Your task to perform on an android device: Open accessibility settings Image 0: 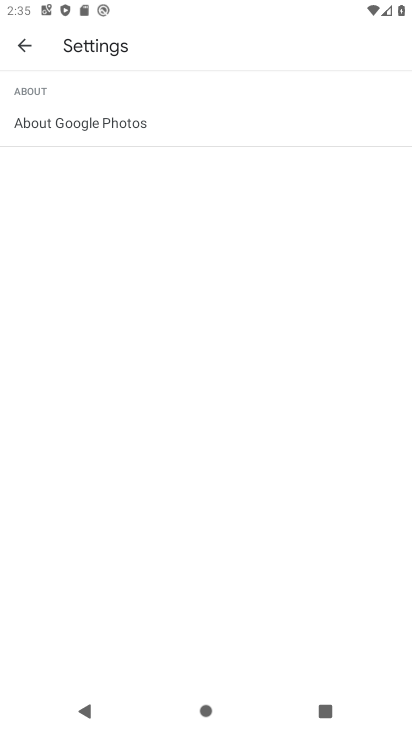
Step 0: press home button
Your task to perform on an android device: Open accessibility settings Image 1: 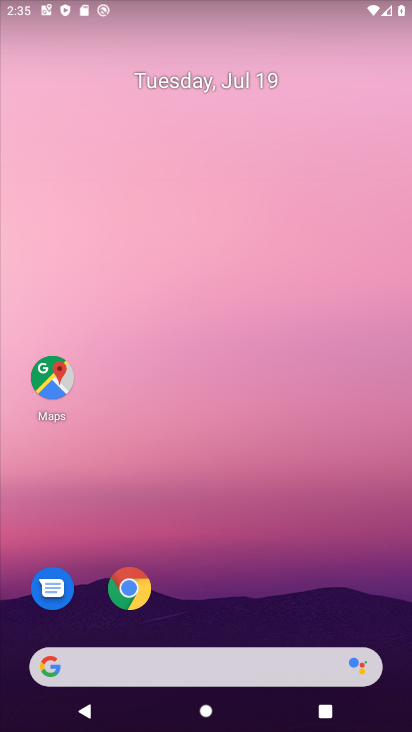
Step 1: drag from (188, 535) to (172, 111)
Your task to perform on an android device: Open accessibility settings Image 2: 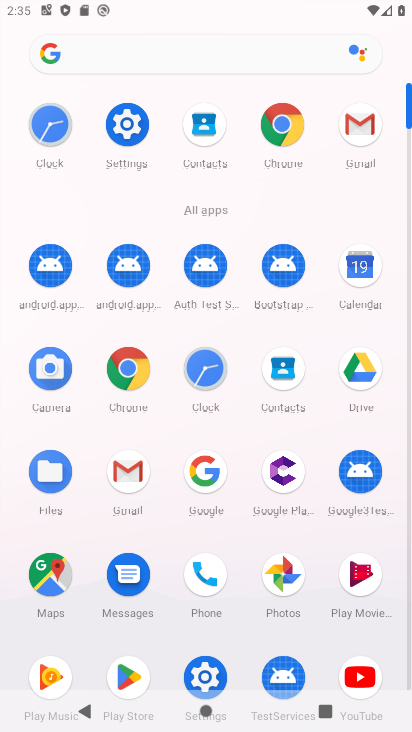
Step 2: click (126, 132)
Your task to perform on an android device: Open accessibility settings Image 3: 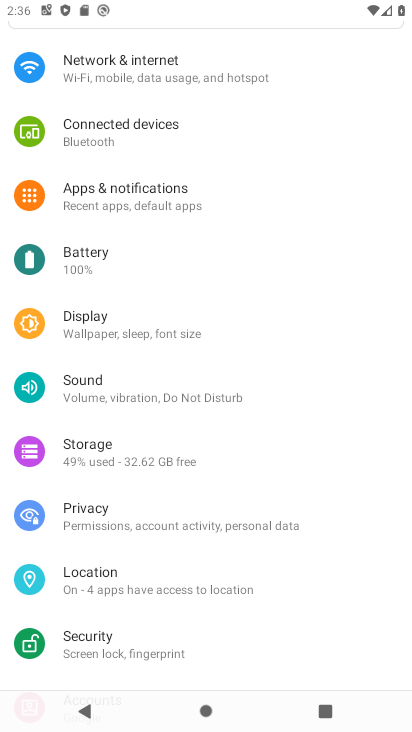
Step 3: drag from (129, 503) to (204, 207)
Your task to perform on an android device: Open accessibility settings Image 4: 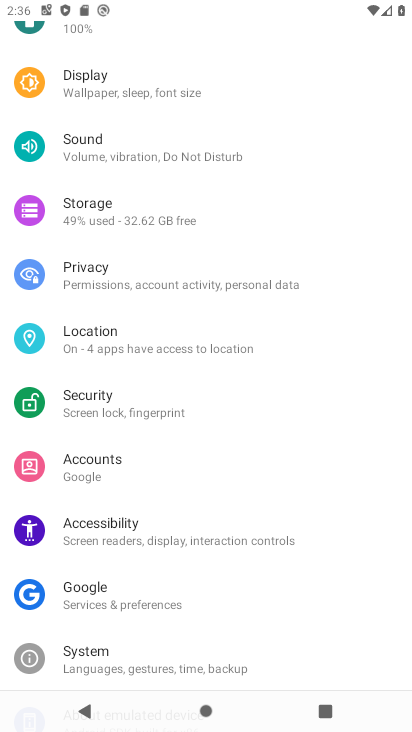
Step 4: click (125, 544)
Your task to perform on an android device: Open accessibility settings Image 5: 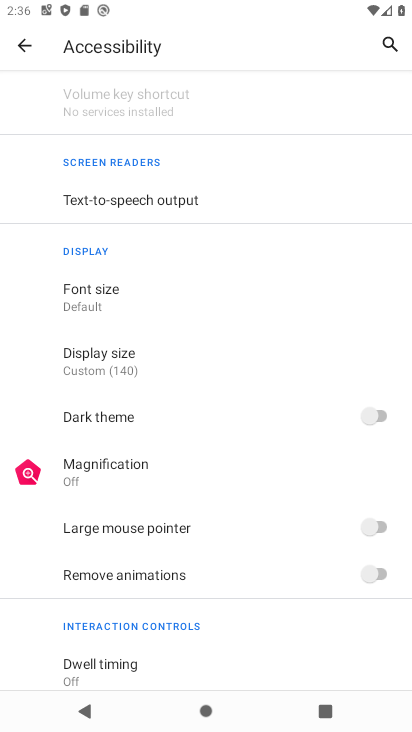
Step 5: task complete